Your task to perform on an android device: open chrome privacy settings Image 0: 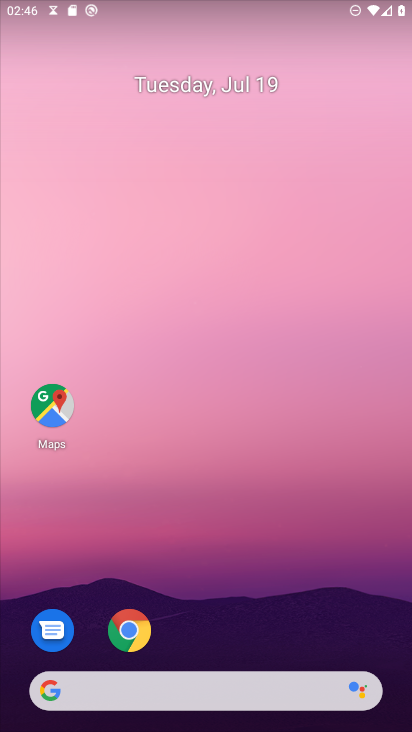
Step 0: click (124, 632)
Your task to perform on an android device: open chrome privacy settings Image 1: 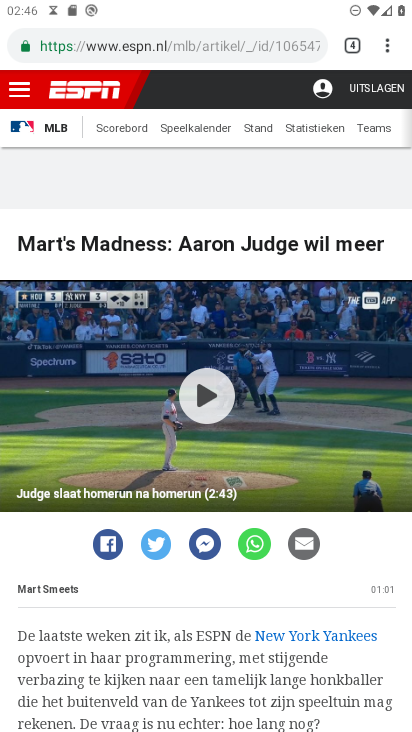
Step 1: drag from (380, 39) to (239, 553)
Your task to perform on an android device: open chrome privacy settings Image 2: 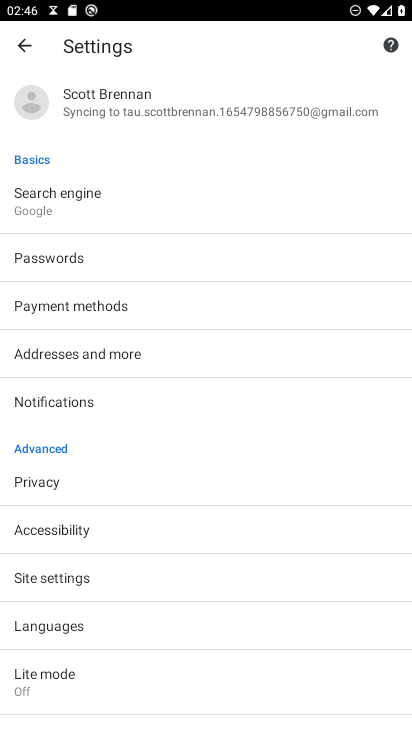
Step 2: click (46, 482)
Your task to perform on an android device: open chrome privacy settings Image 3: 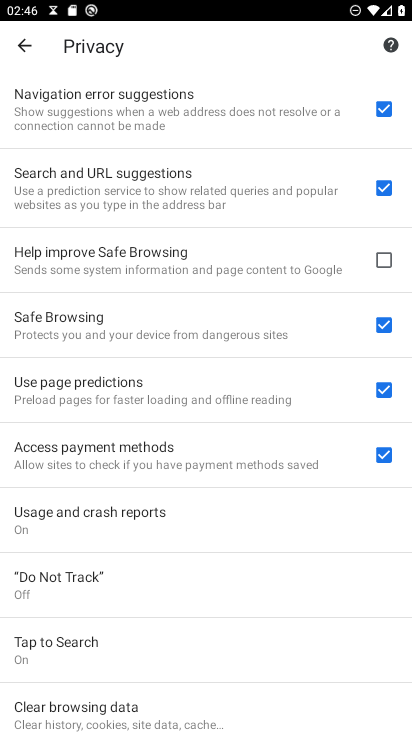
Step 3: task complete